Your task to perform on an android device: Clear the shopping cart on costco. Search for razer kraken on costco, select the first entry, add it to the cart, then select checkout. Image 0: 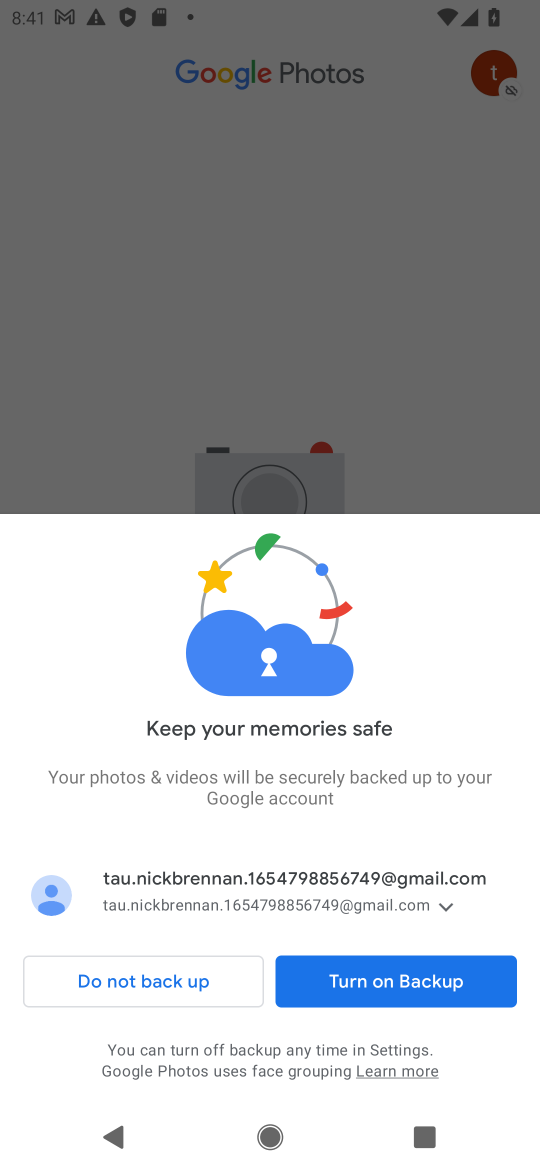
Step 0: press home button
Your task to perform on an android device: Clear the shopping cart on costco. Search for razer kraken on costco, select the first entry, add it to the cart, then select checkout. Image 1: 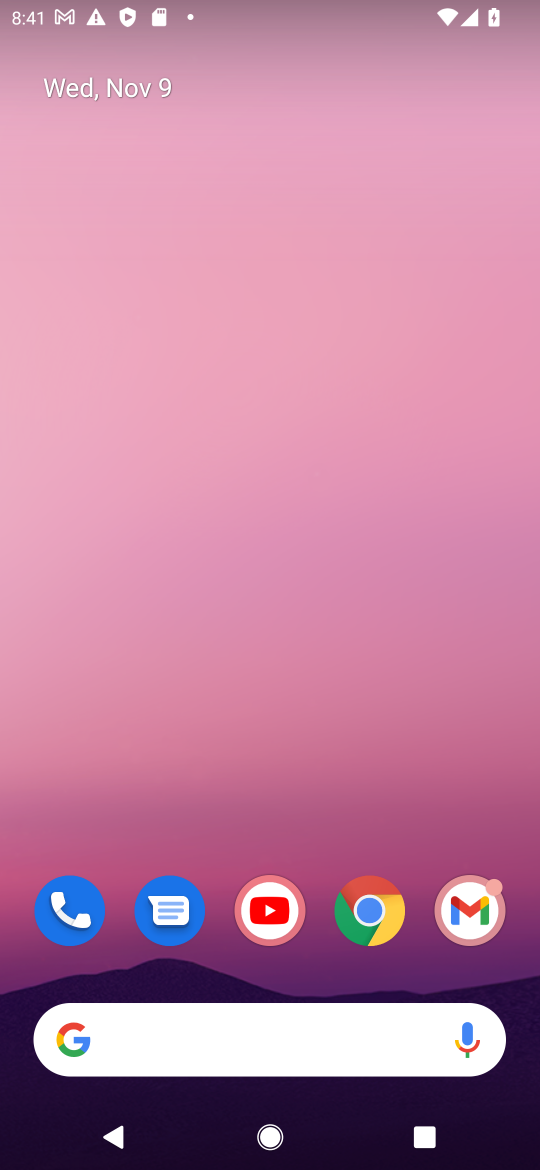
Step 1: click (362, 918)
Your task to perform on an android device: Clear the shopping cart on costco. Search for razer kraken on costco, select the first entry, add it to the cart, then select checkout. Image 2: 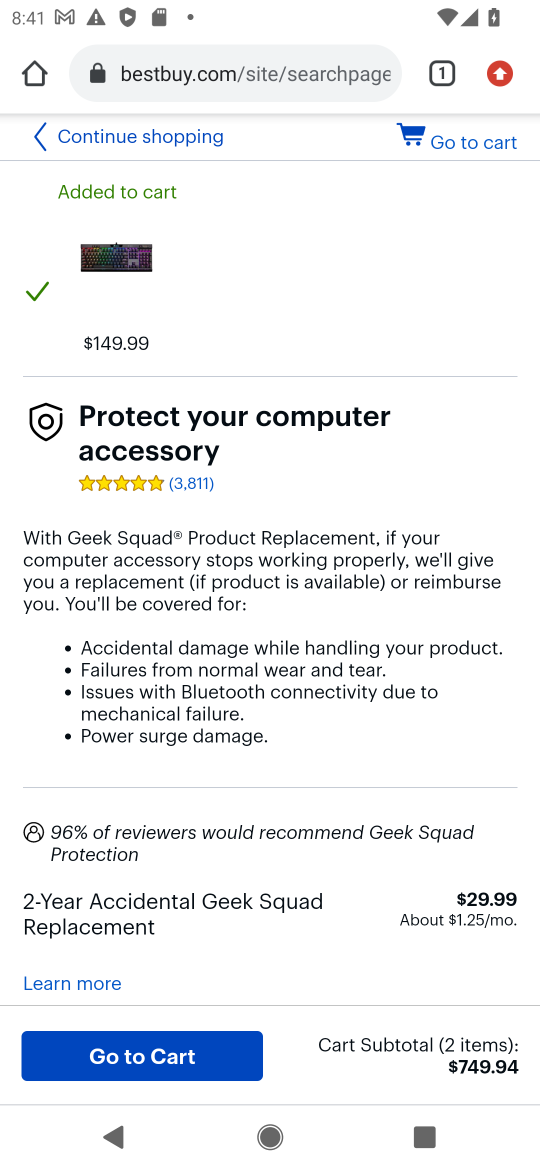
Step 2: click (205, 63)
Your task to perform on an android device: Clear the shopping cart on costco. Search for razer kraken on costco, select the first entry, add it to the cart, then select checkout. Image 3: 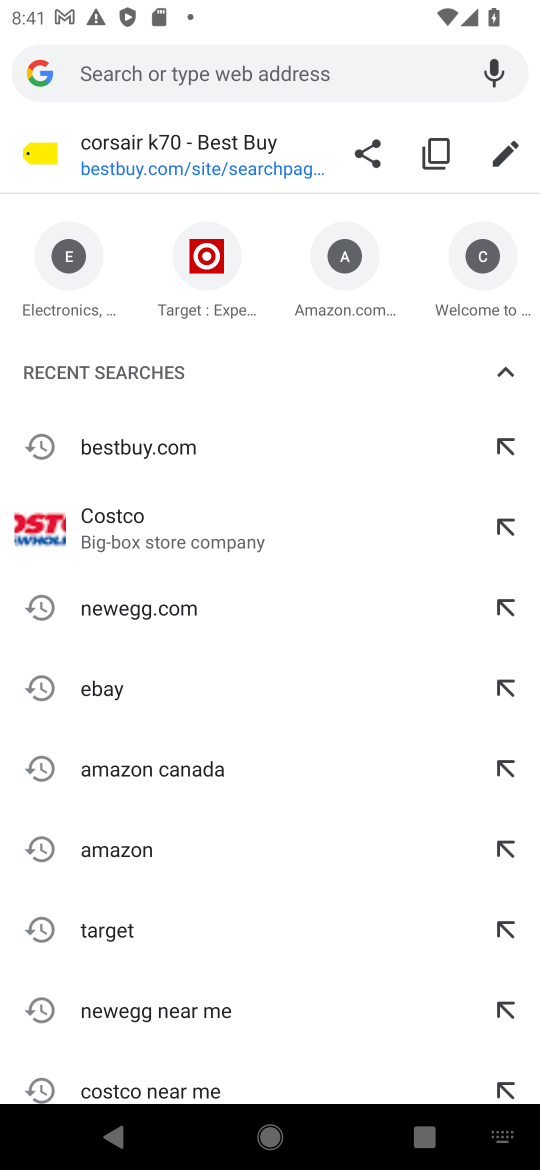
Step 3: click (140, 538)
Your task to perform on an android device: Clear the shopping cart on costco. Search for razer kraken on costco, select the first entry, add it to the cart, then select checkout. Image 4: 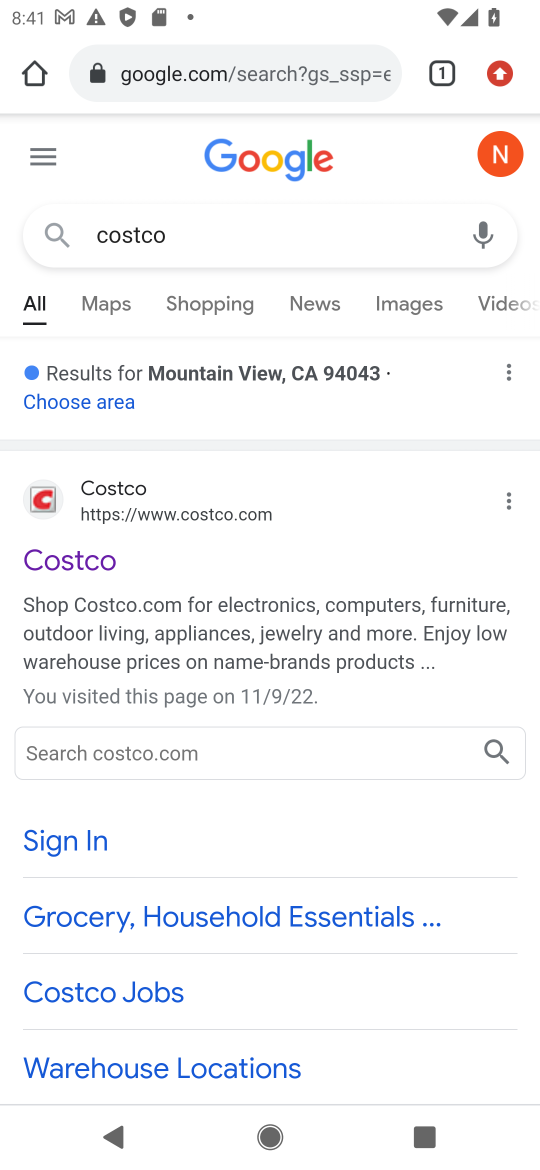
Step 4: click (102, 530)
Your task to perform on an android device: Clear the shopping cart on costco. Search for razer kraken on costco, select the first entry, add it to the cart, then select checkout. Image 5: 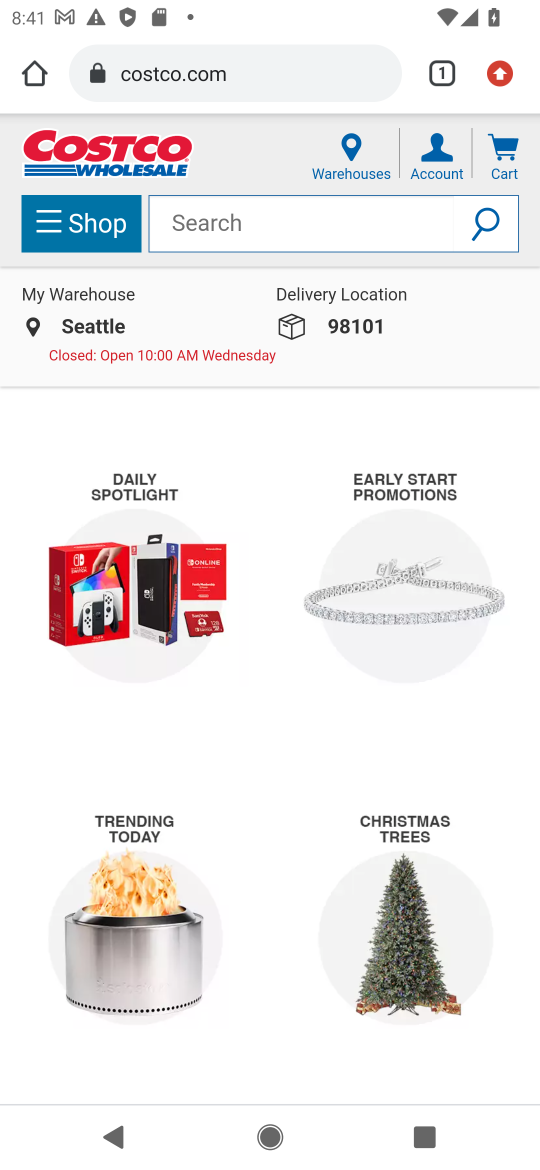
Step 5: click (505, 152)
Your task to perform on an android device: Clear the shopping cart on costco. Search for razer kraken on costco, select the first entry, add it to the cart, then select checkout. Image 6: 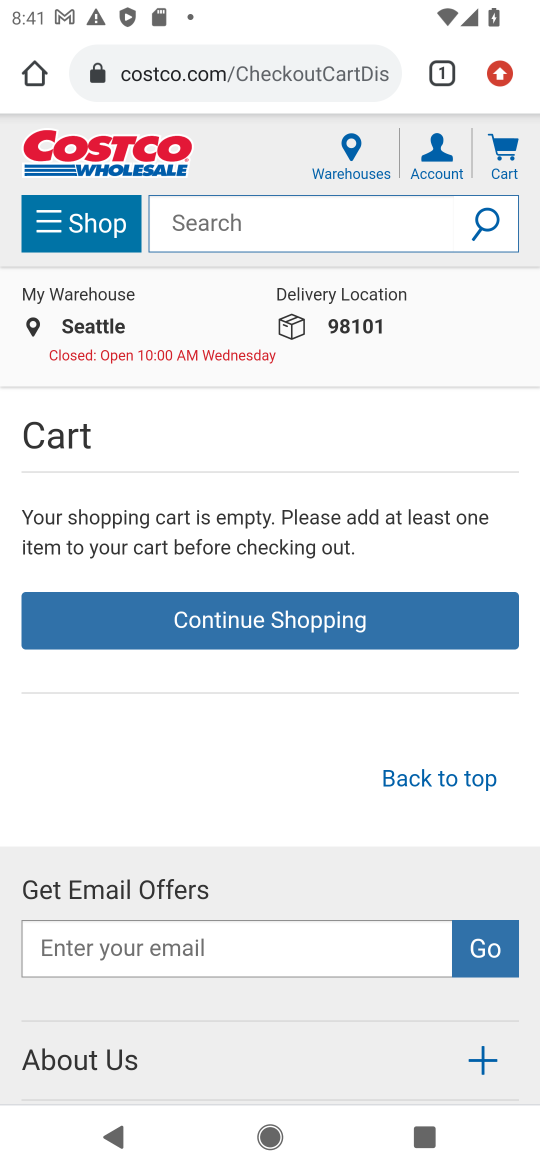
Step 6: click (261, 228)
Your task to perform on an android device: Clear the shopping cart on costco. Search for razer kraken on costco, select the first entry, add it to the cart, then select checkout. Image 7: 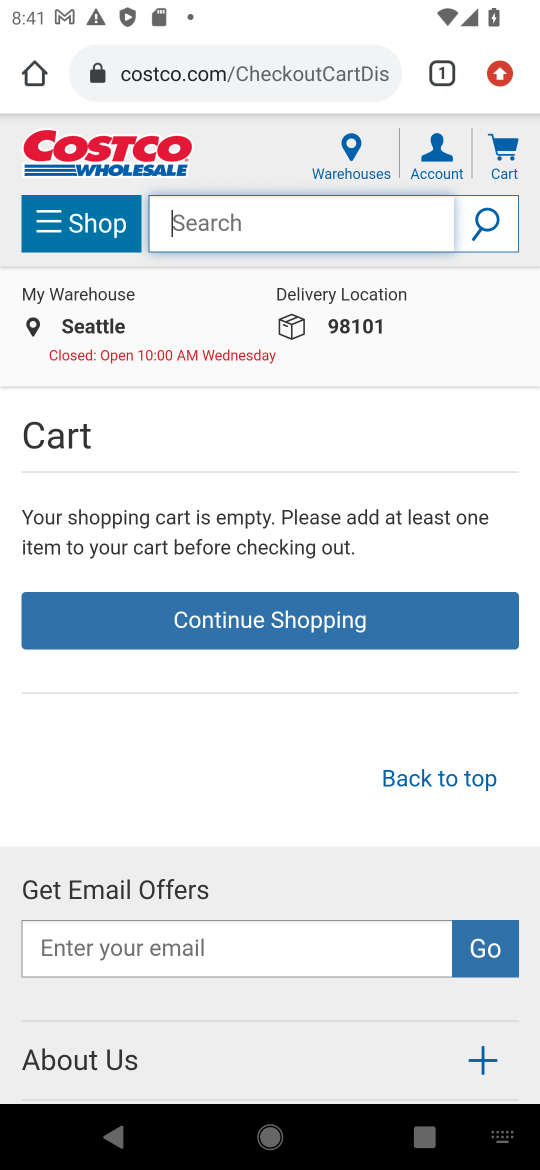
Step 7: type "razer kraken"
Your task to perform on an android device: Clear the shopping cart on costco. Search for razer kraken on costco, select the first entry, add it to the cart, then select checkout. Image 8: 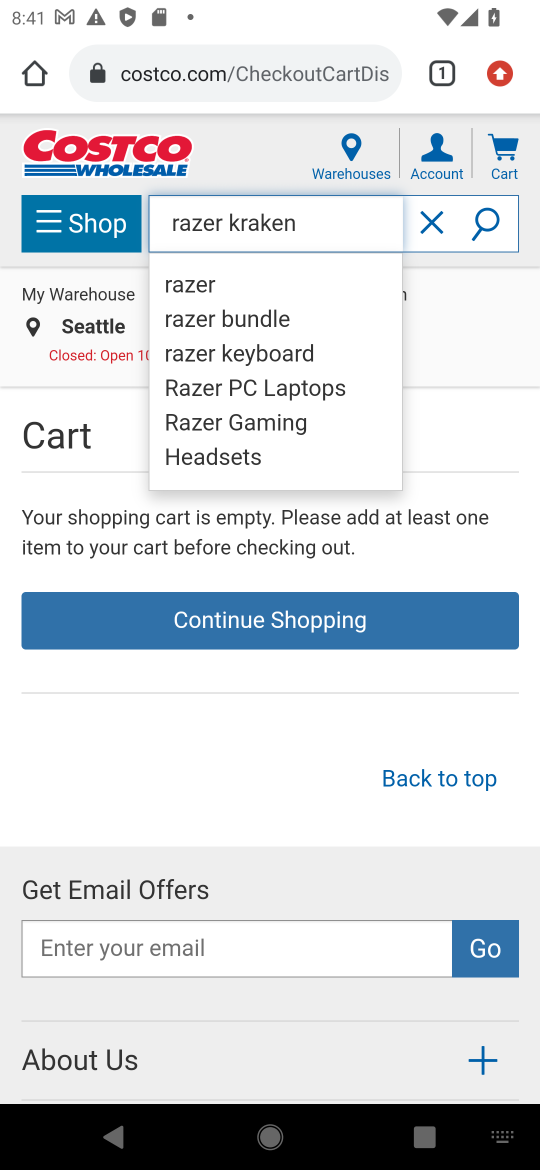
Step 8: click (492, 224)
Your task to perform on an android device: Clear the shopping cart on costco. Search for razer kraken on costco, select the first entry, add it to the cart, then select checkout. Image 9: 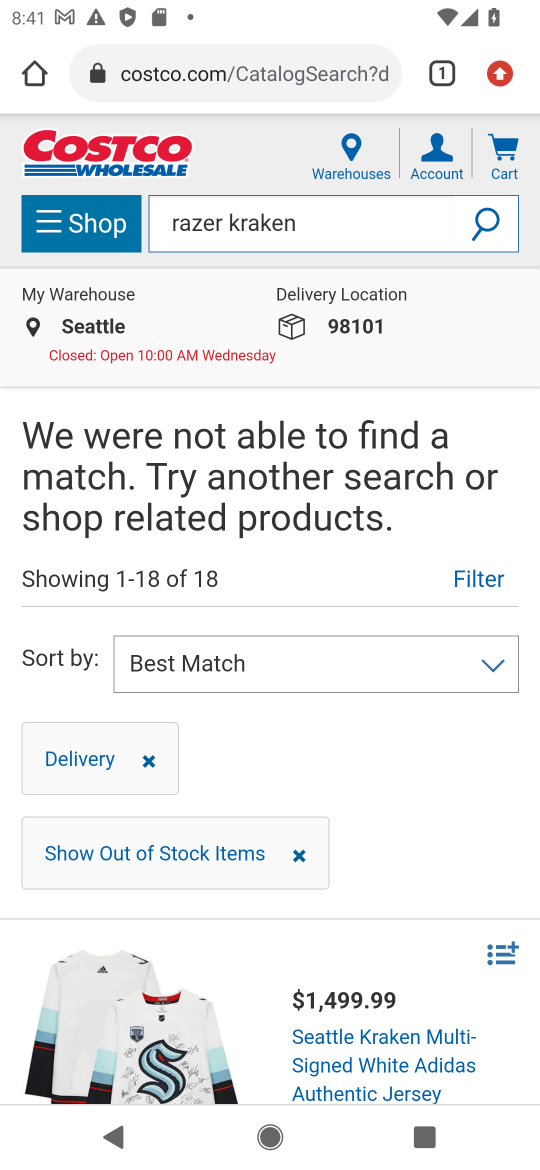
Step 9: task complete